Your task to perform on an android device: Open Amazon Image 0: 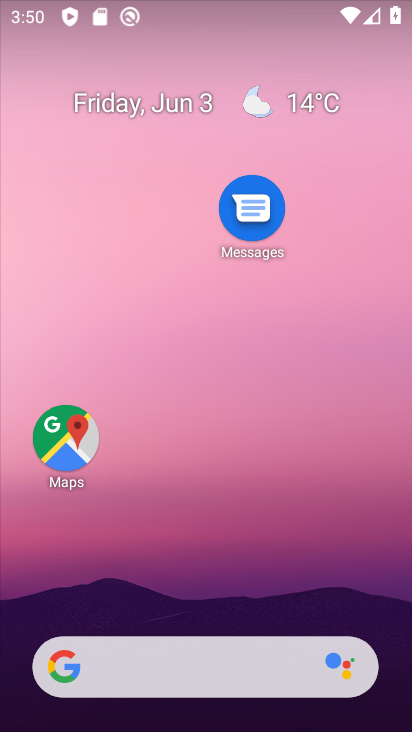
Step 0: drag from (216, 601) to (214, 289)
Your task to perform on an android device: Open Amazon Image 1: 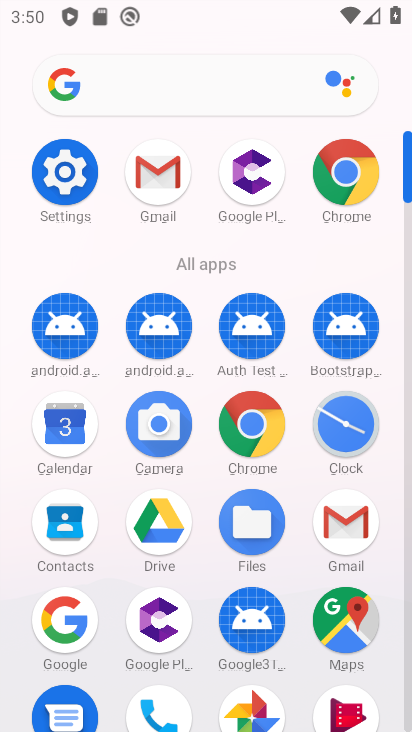
Step 1: click (248, 422)
Your task to perform on an android device: Open Amazon Image 2: 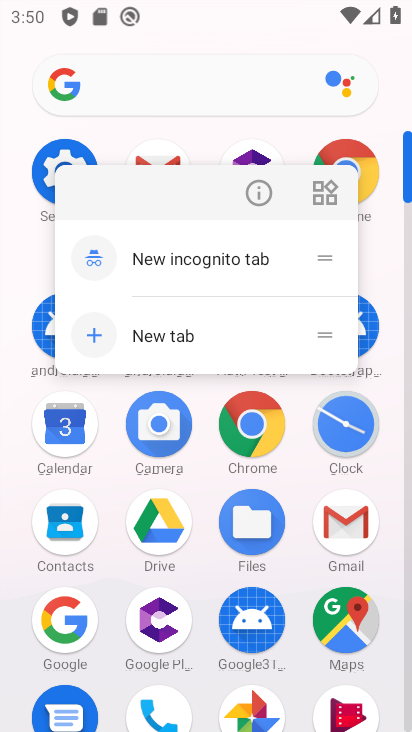
Step 2: click (249, 440)
Your task to perform on an android device: Open Amazon Image 3: 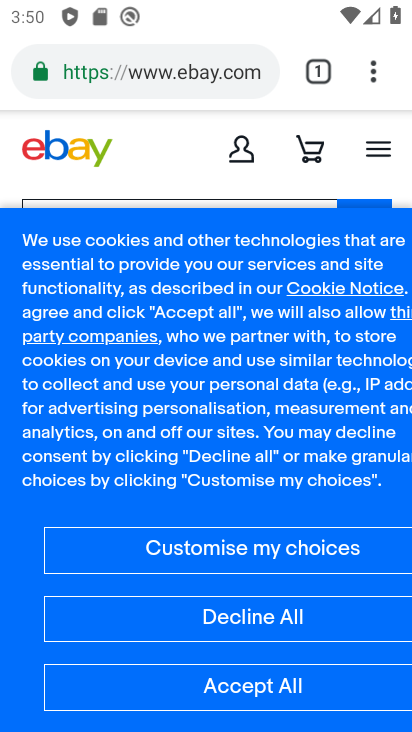
Step 3: press back button
Your task to perform on an android device: Open Amazon Image 4: 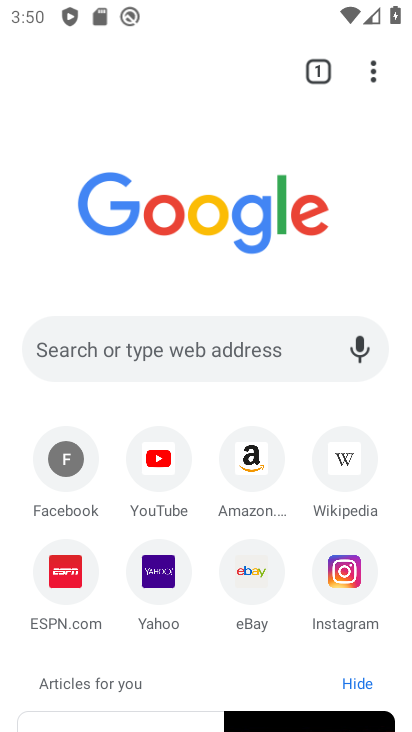
Step 4: click (246, 480)
Your task to perform on an android device: Open Amazon Image 5: 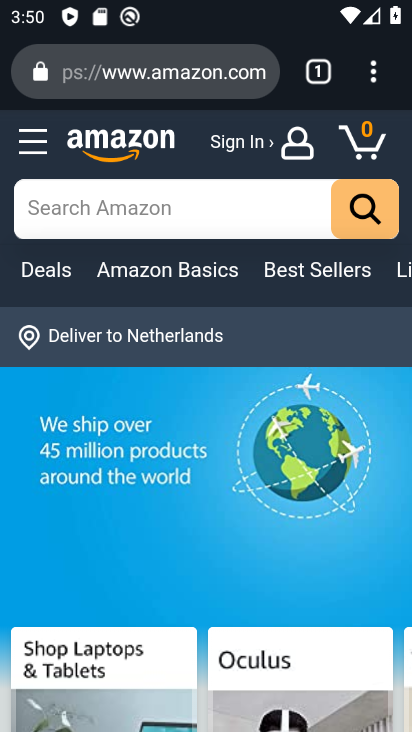
Step 5: task complete